Your task to perform on an android device: What's the weather going to be tomorrow? Image 0: 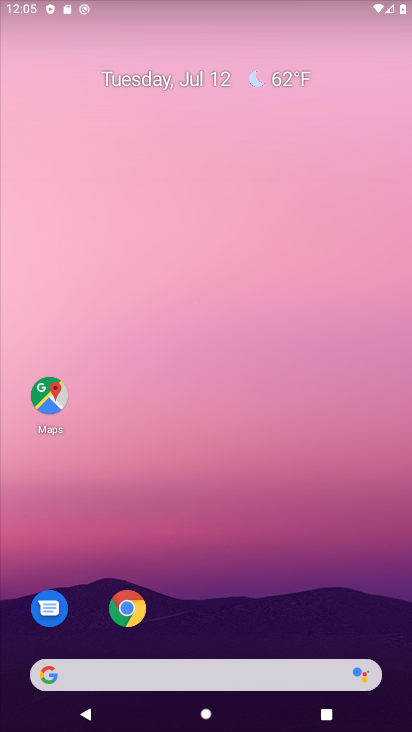
Step 0: click (410, 118)
Your task to perform on an android device: What's the weather going to be tomorrow? Image 1: 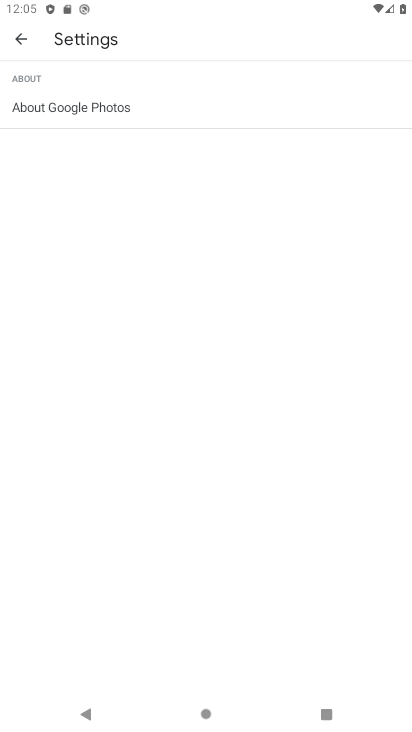
Step 1: press home button
Your task to perform on an android device: What's the weather going to be tomorrow? Image 2: 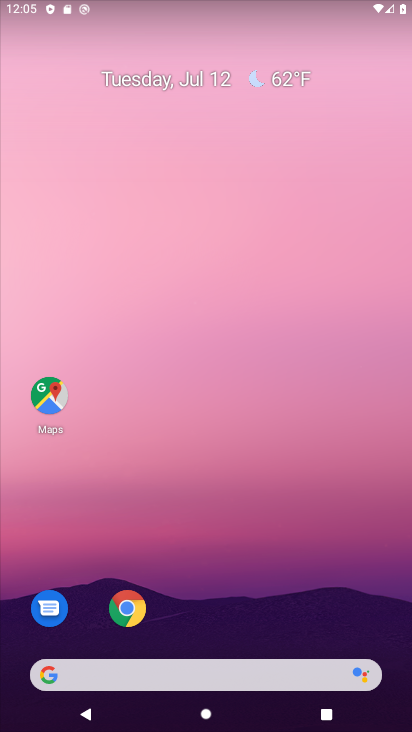
Step 2: drag from (130, 619) to (294, 32)
Your task to perform on an android device: What's the weather going to be tomorrow? Image 3: 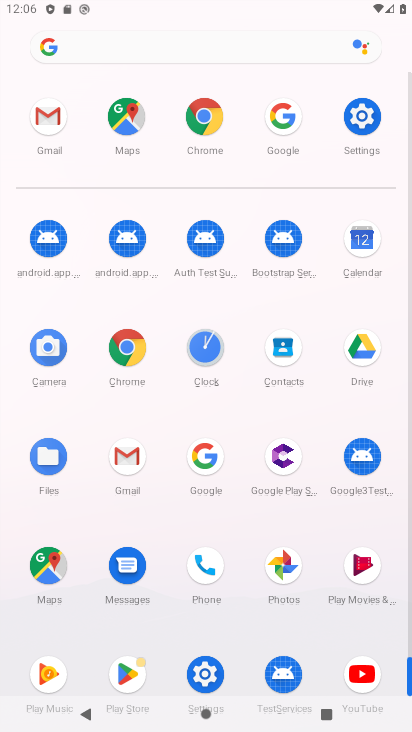
Step 3: click (285, 122)
Your task to perform on an android device: What's the weather going to be tomorrow? Image 4: 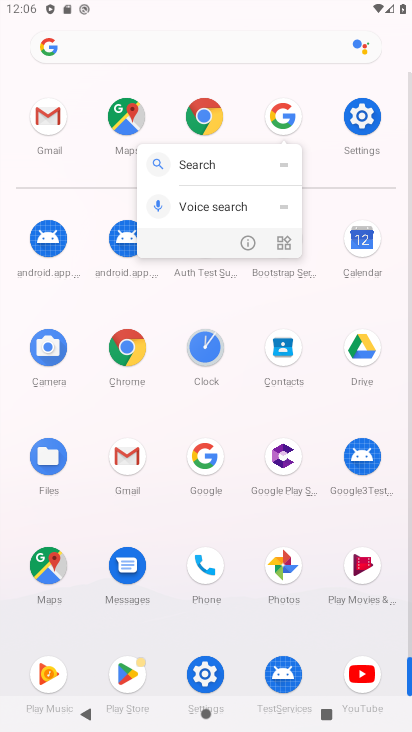
Step 4: click (286, 124)
Your task to perform on an android device: What's the weather going to be tomorrow? Image 5: 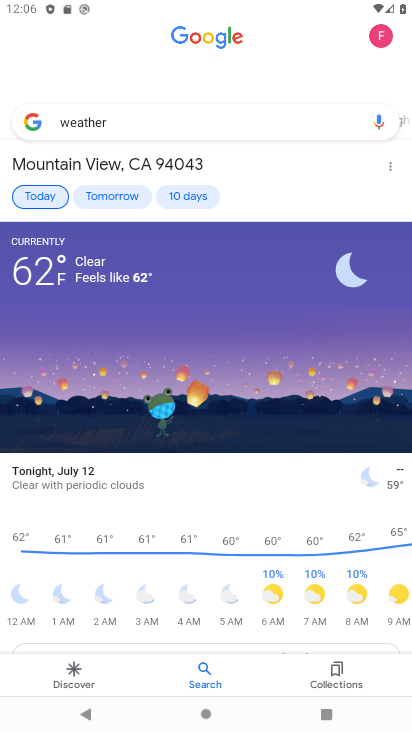
Step 5: task complete